Your task to perform on an android device: Open Google Image 0: 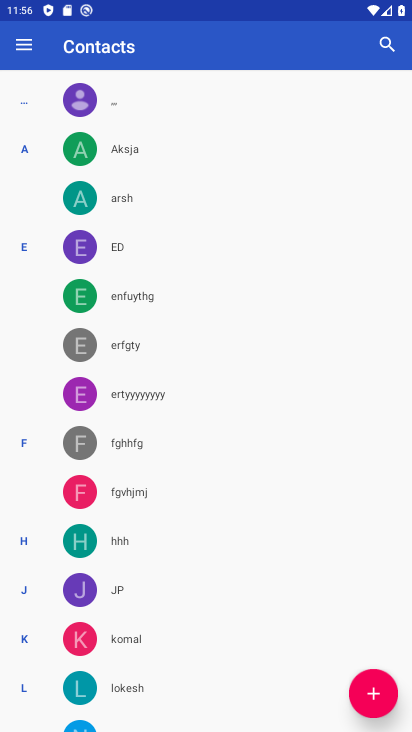
Step 0: press home button
Your task to perform on an android device: Open Google Image 1: 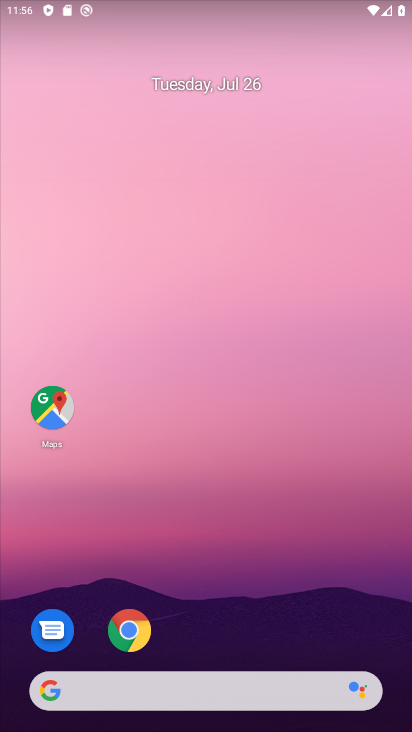
Step 1: drag from (220, 618) to (204, 120)
Your task to perform on an android device: Open Google Image 2: 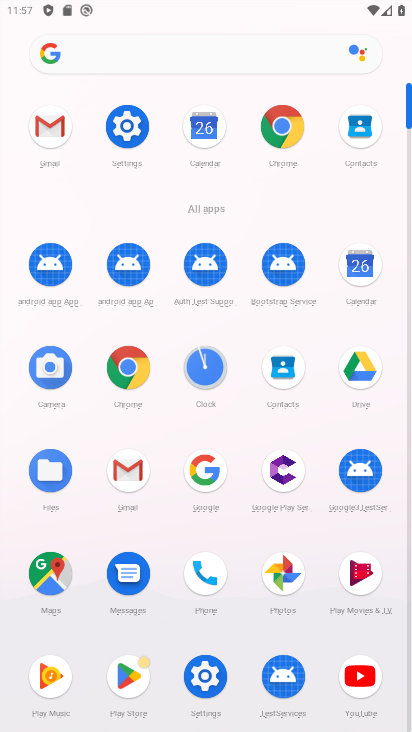
Step 2: click (201, 478)
Your task to perform on an android device: Open Google Image 3: 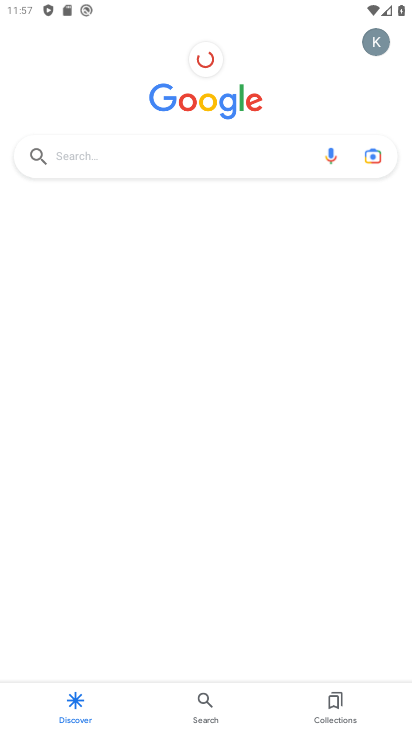
Step 3: task complete